Your task to perform on an android device: open chrome privacy settings Image 0: 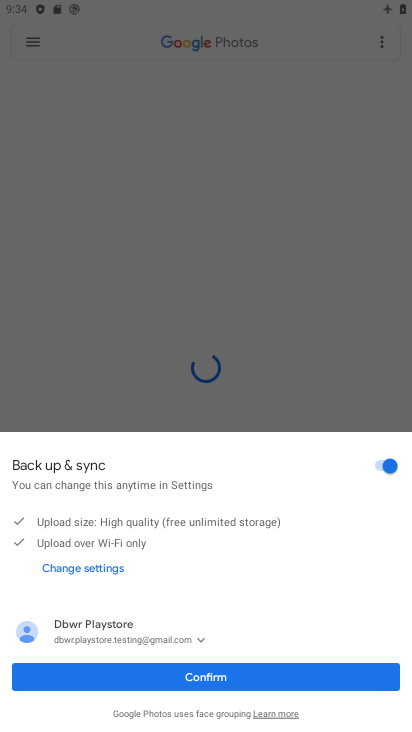
Step 0: click (304, 678)
Your task to perform on an android device: open chrome privacy settings Image 1: 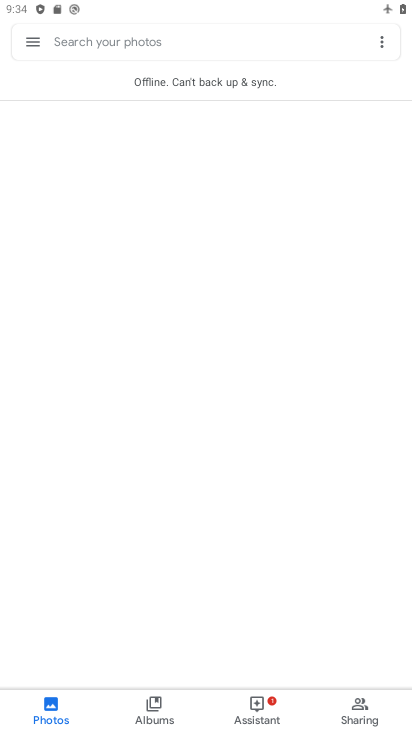
Step 1: drag from (375, 13) to (265, 594)
Your task to perform on an android device: open chrome privacy settings Image 2: 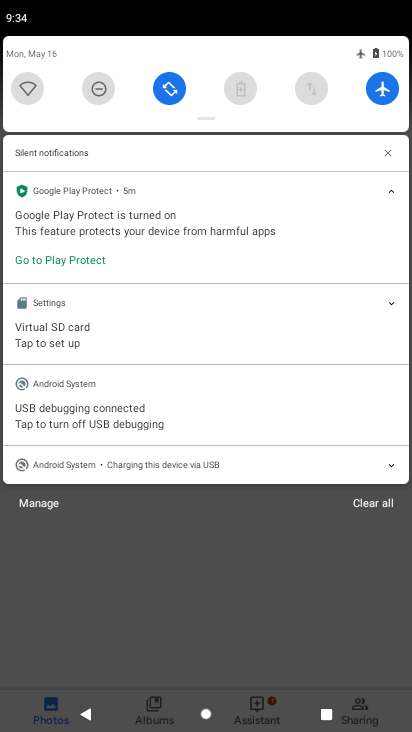
Step 2: click (382, 88)
Your task to perform on an android device: open chrome privacy settings Image 3: 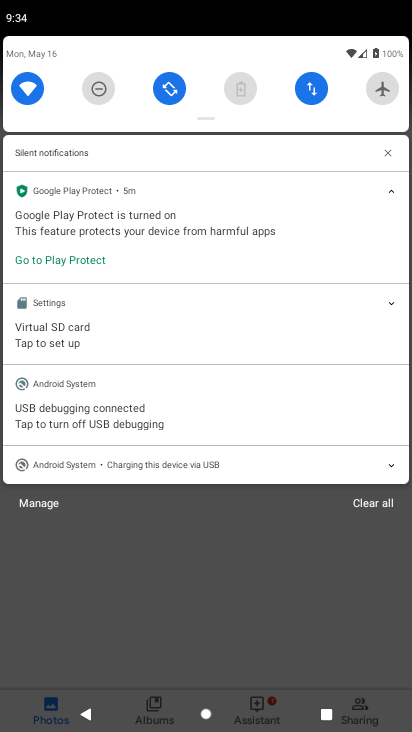
Step 3: press home button
Your task to perform on an android device: open chrome privacy settings Image 4: 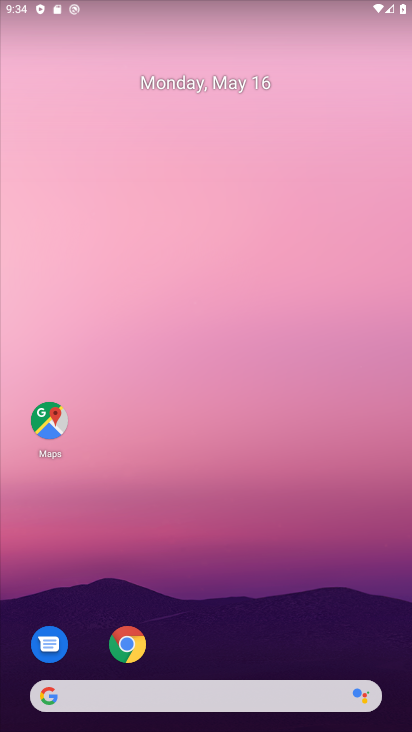
Step 4: click (123, 640)
Your task to perform on an android device: open chrome privacy settings Image 5: 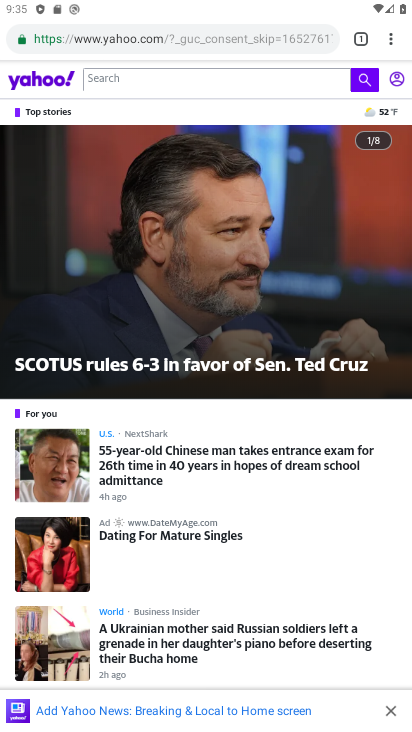
Step 5: click (393, 34)
Your task to perform on an android device: open chrome privacy settings Image 6: 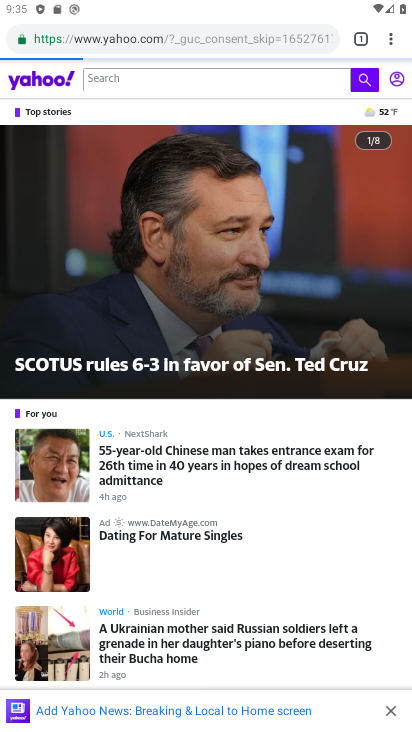
Step 6: click (391, 44)
Your task to perform on an android device: open chrome privacy settings Image 7: 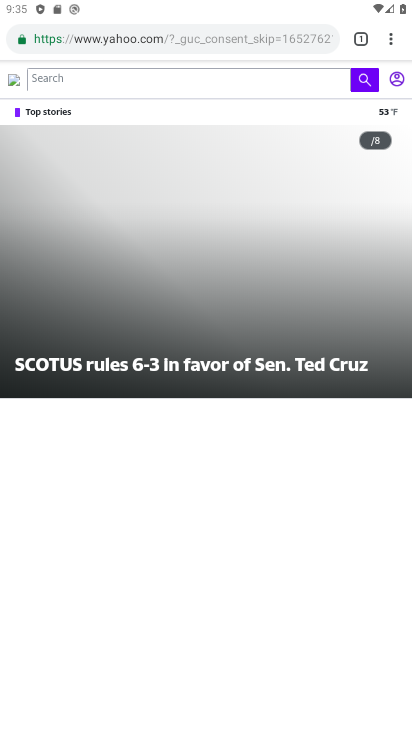
Step 7: click (388, 42)
Your task to perform on an android device: open chrome privacy settings Image 8: 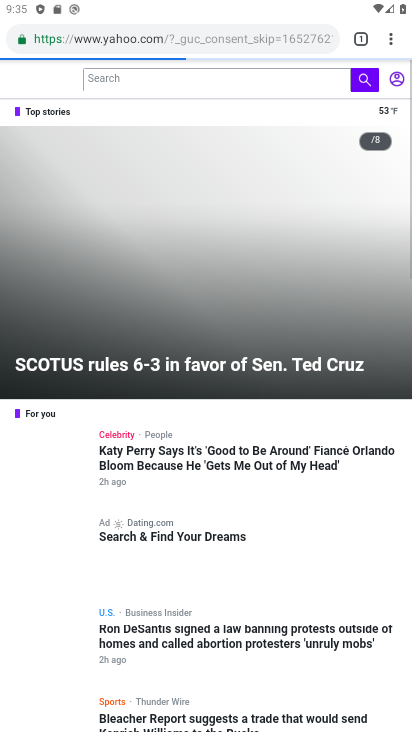
Step 8: click (387, 41)
Your task to perform on an android device: open chrome privacy settings Image 9: 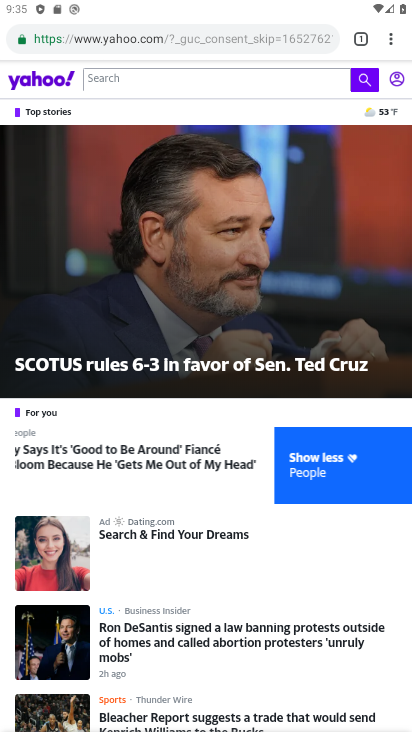
Step 9: click (393, 42)
Your task to perform on an android device: open chrome privacy settings Image 10: 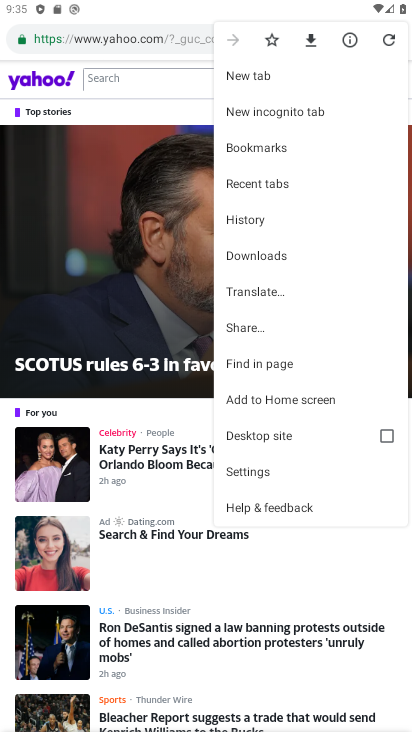
Step 10: click (254, 472)
Your task to perform on an android device: open chrome privacy settings Image 11: 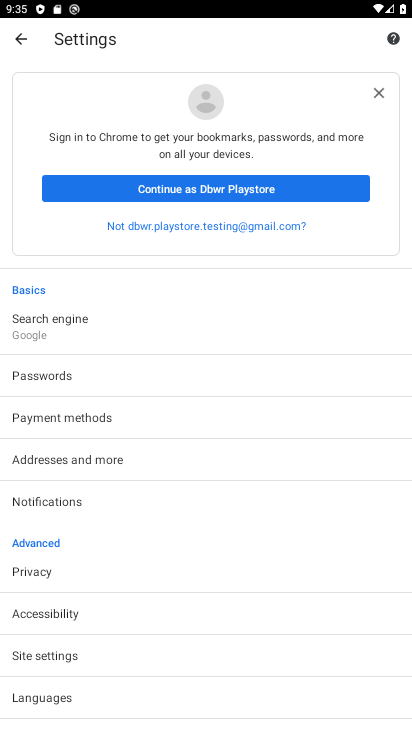
Step 11: click (89, 563)
Your task to perform on an android device: open chrome privacy settings Image 12: 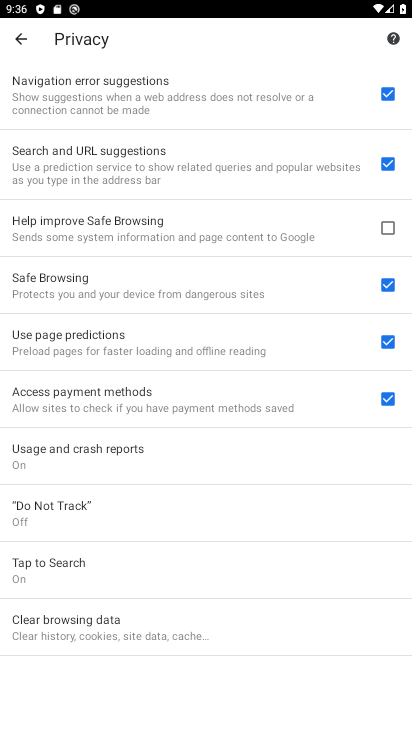
Step 12: task complete